Your task to perform on an android device: change alarm snooze length Image 0: 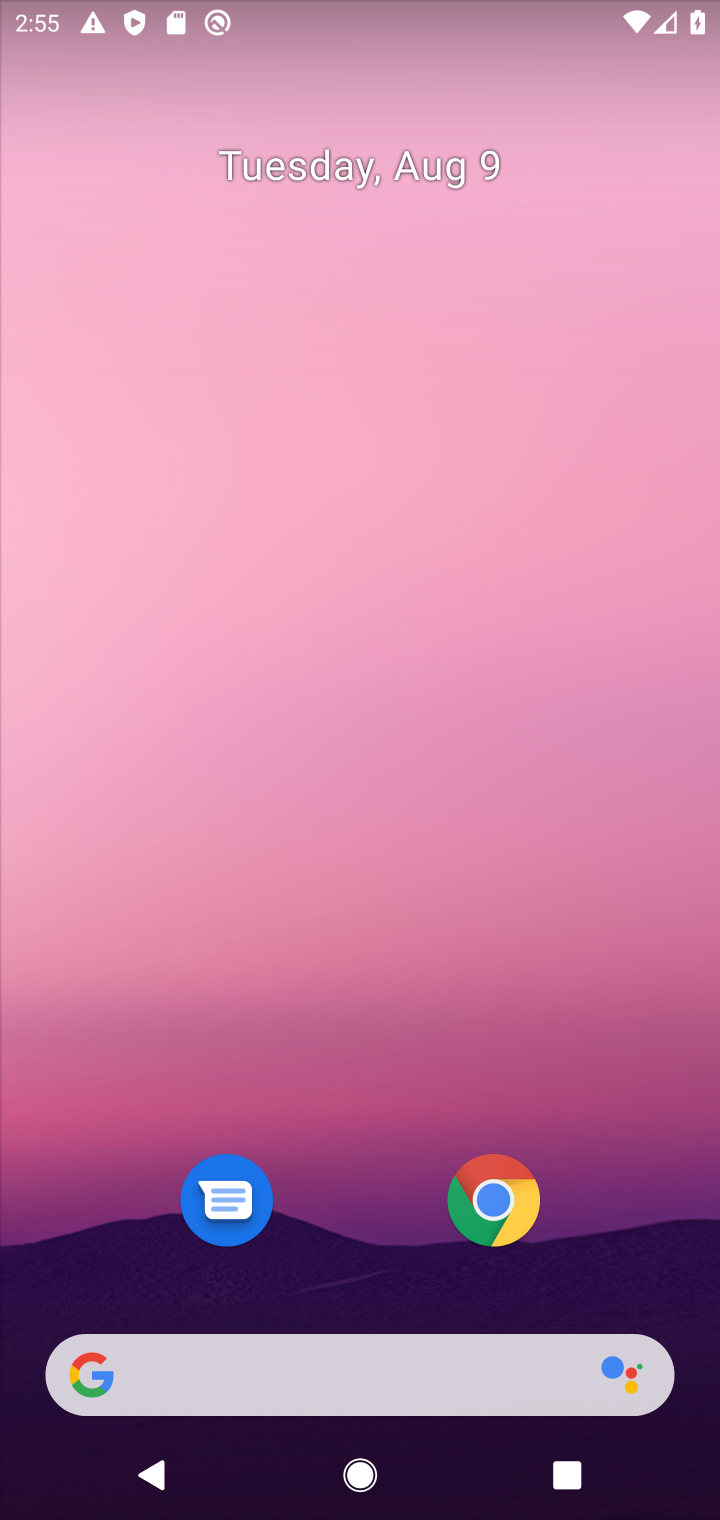
Step 0: drag from (401, 1146) to (461, 45)
Your task to perform on an android device: change alarm snooze length Image 1: 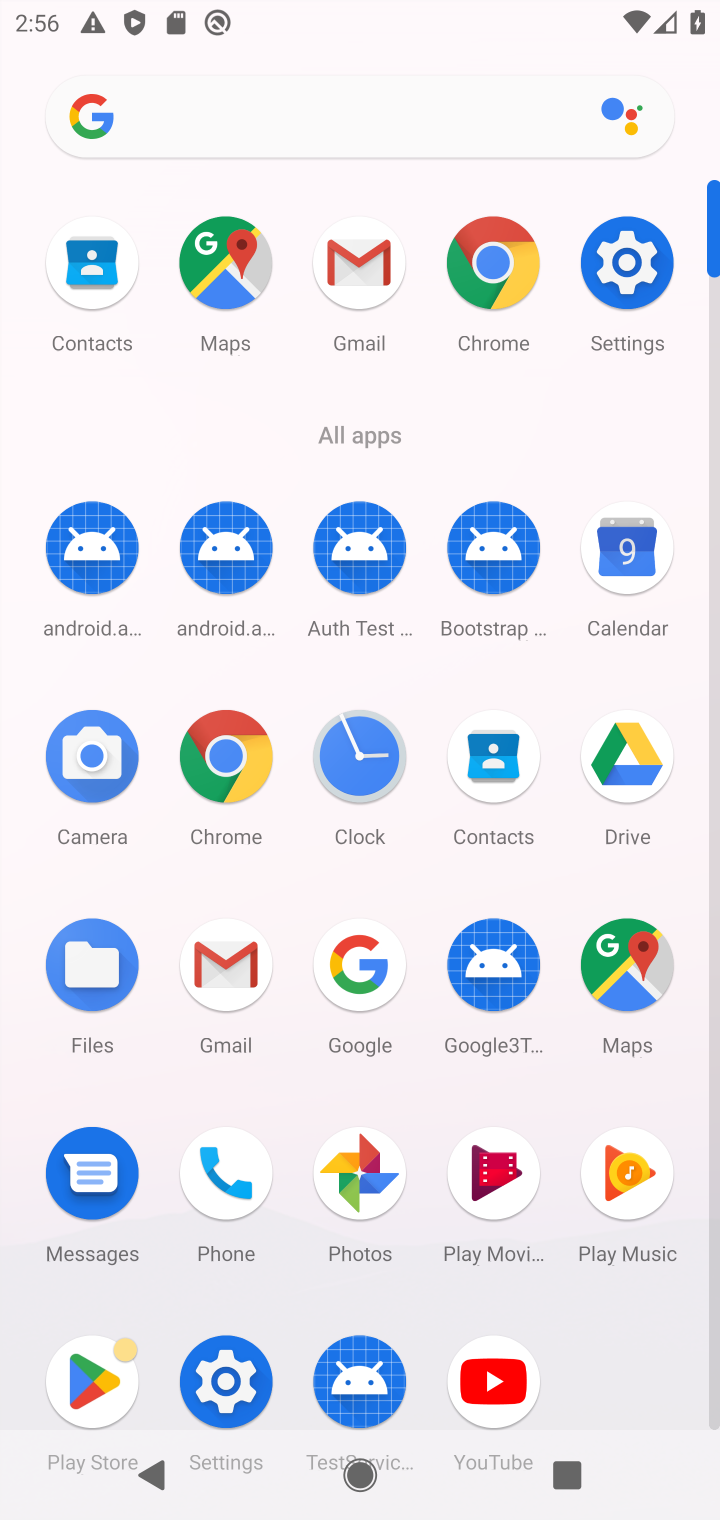
Step 1: click (353, 710)
Your task to perform on an android device: change alarm snooze length Image 2: 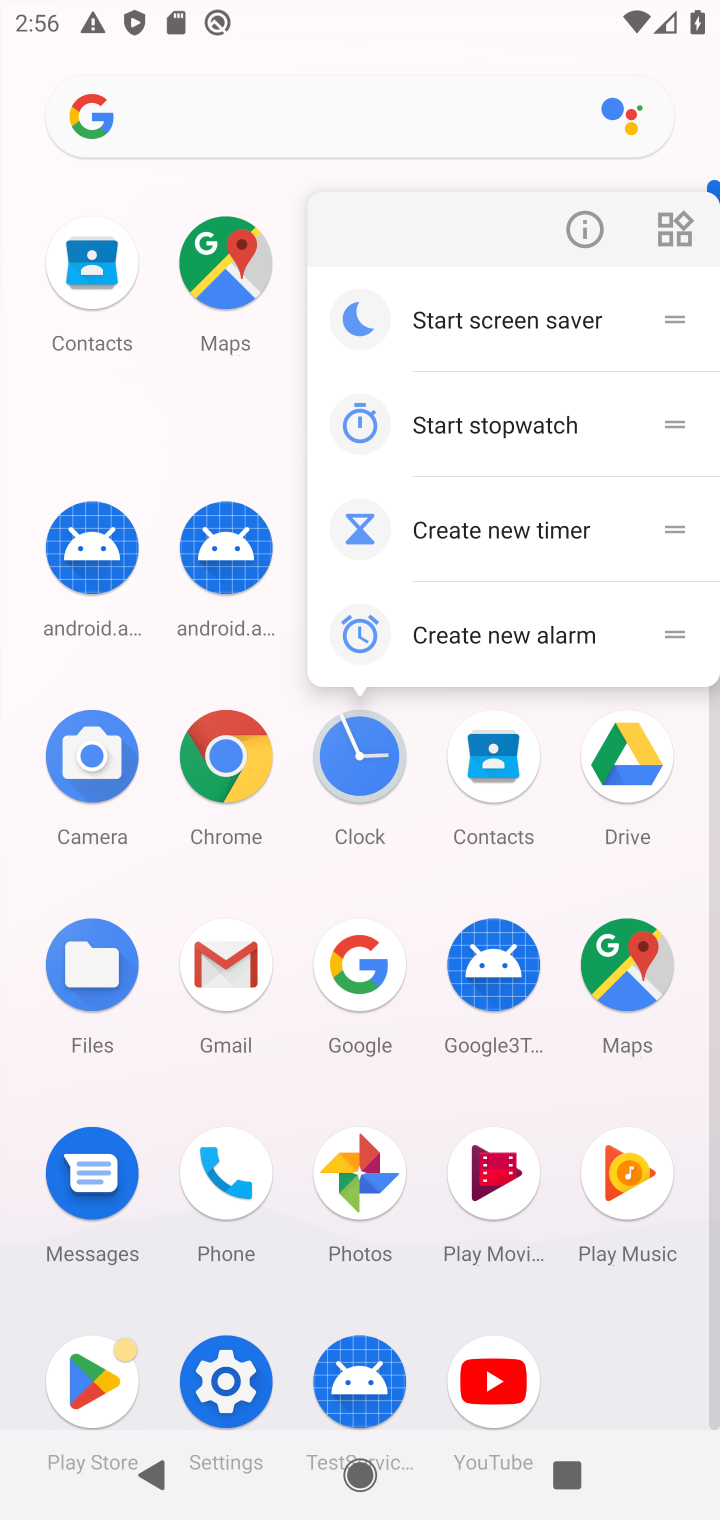
Step 2: click (346, 757)
Your task to perform on an android device: change alarm snooze length Image 3: 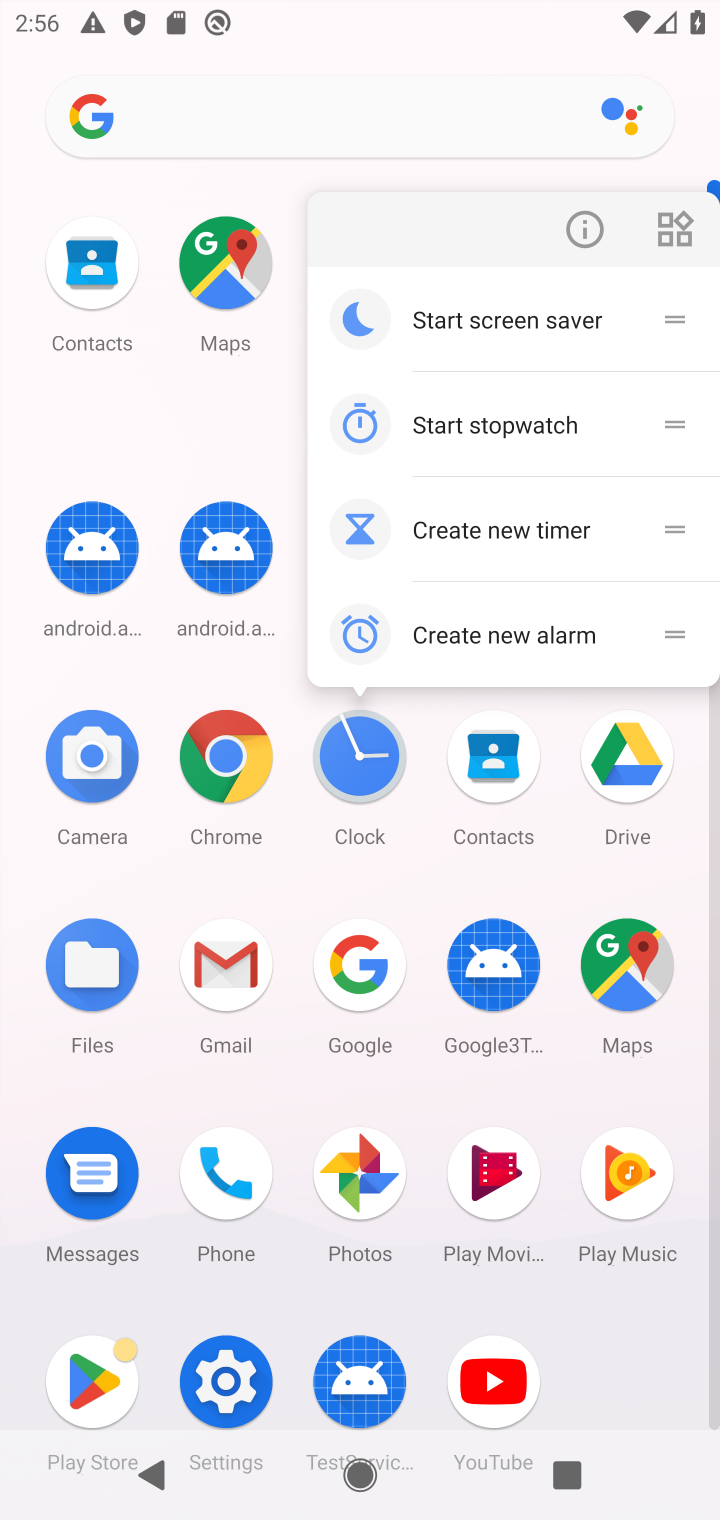
Step 3: click (355, 778)
Your task to perform on an android device: change alarm snooze length Image 4: 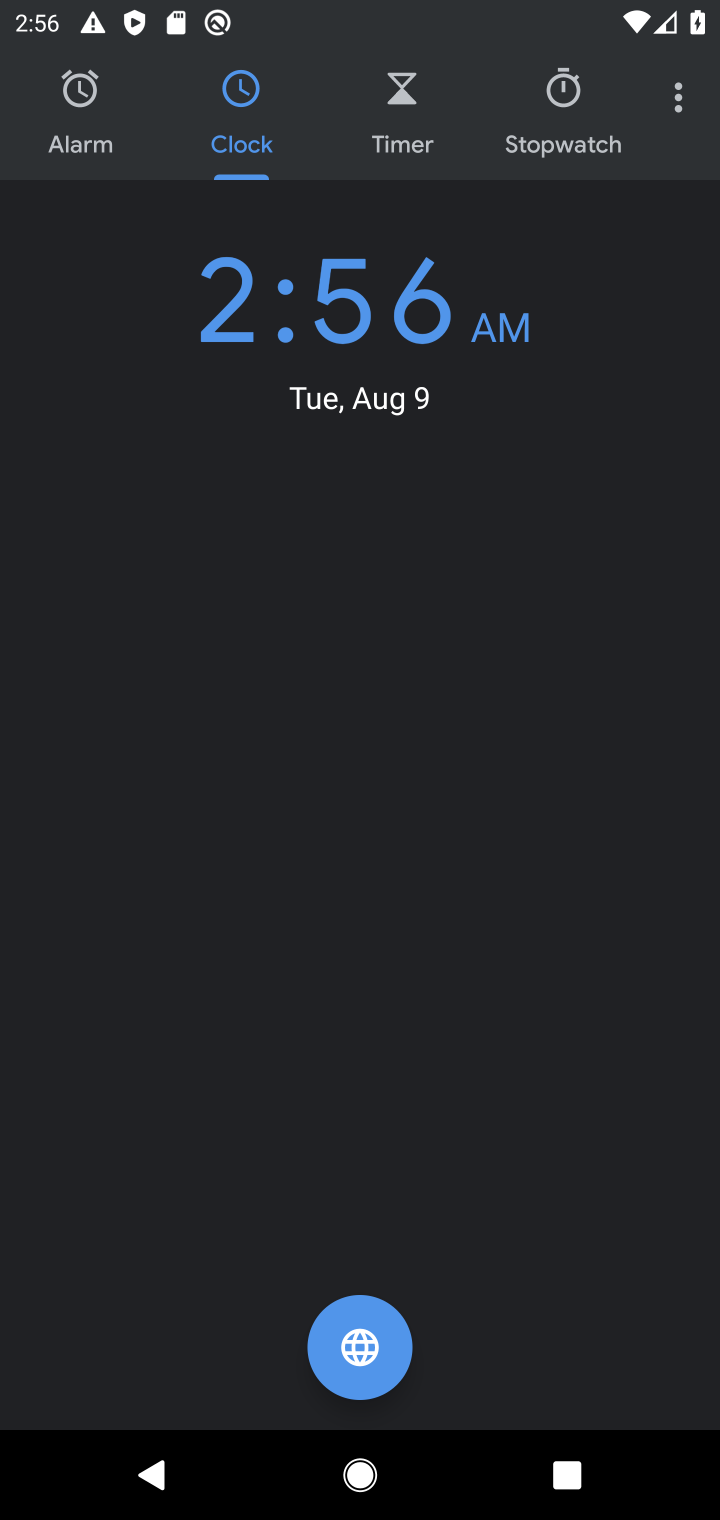
Step 4: click (680, 120)
Your task to perform on an android device: change alarm snooze length Image 5: 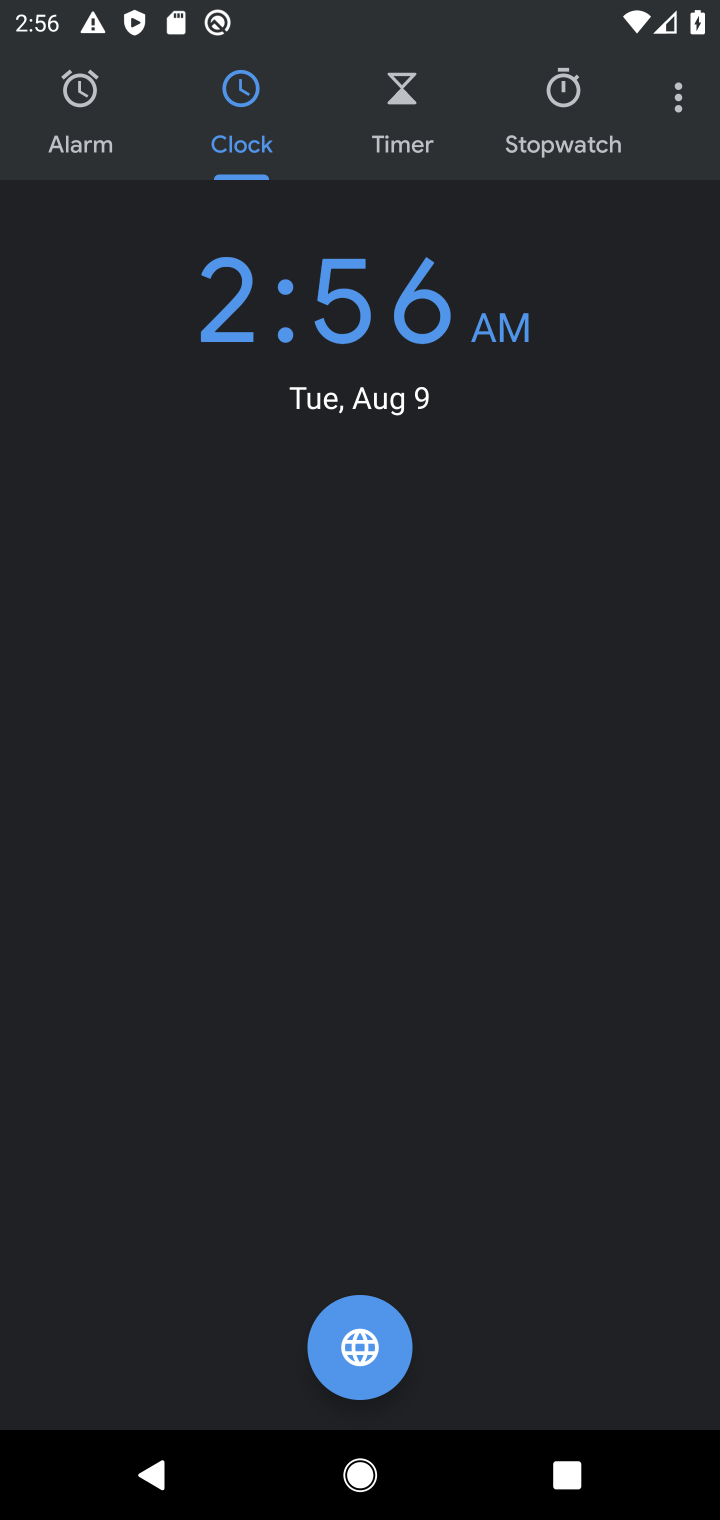
Step 5: click (650, 188)
Your task to perform on an android device: change alarm snooze length Image 6: 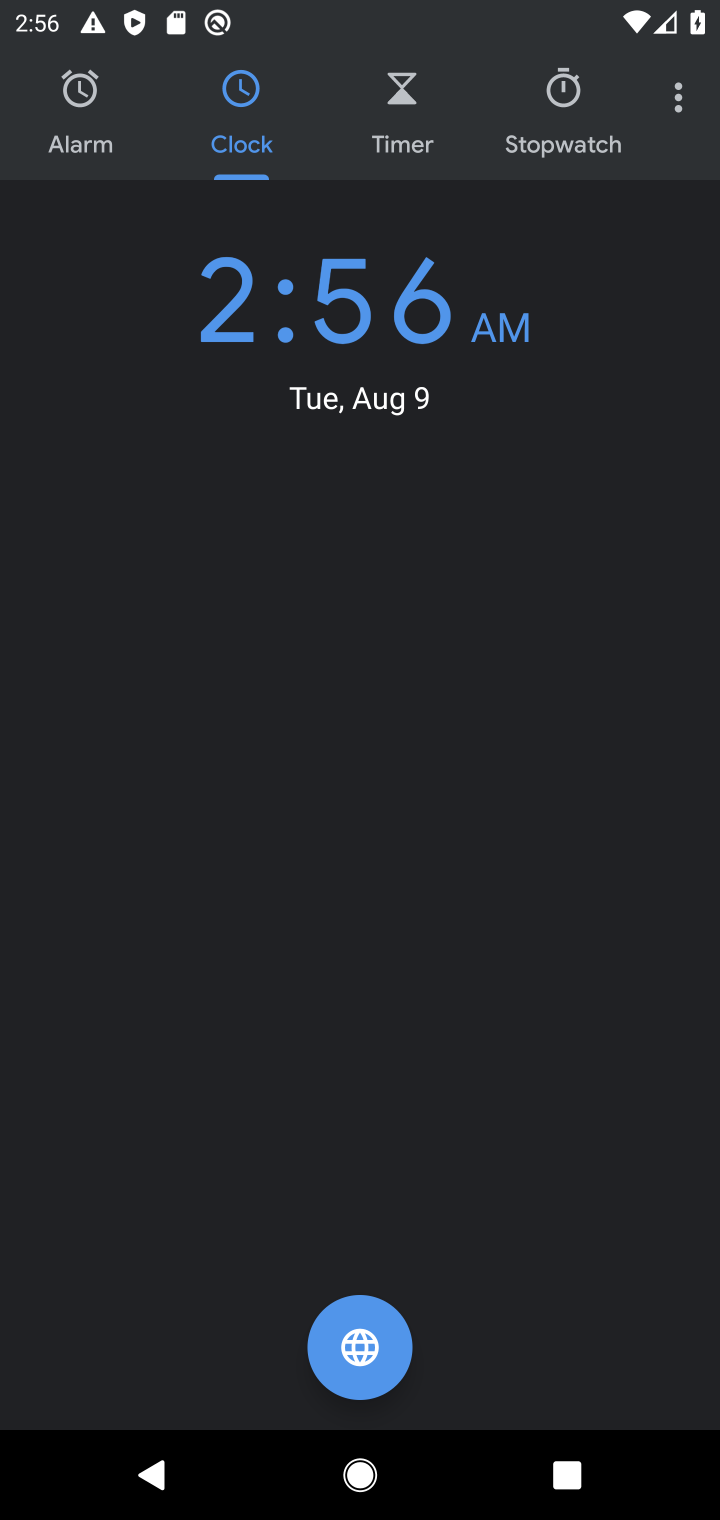
Step 6: click (674, 132)
Your task to perform on an android device: change alarm snooze length Image 7: 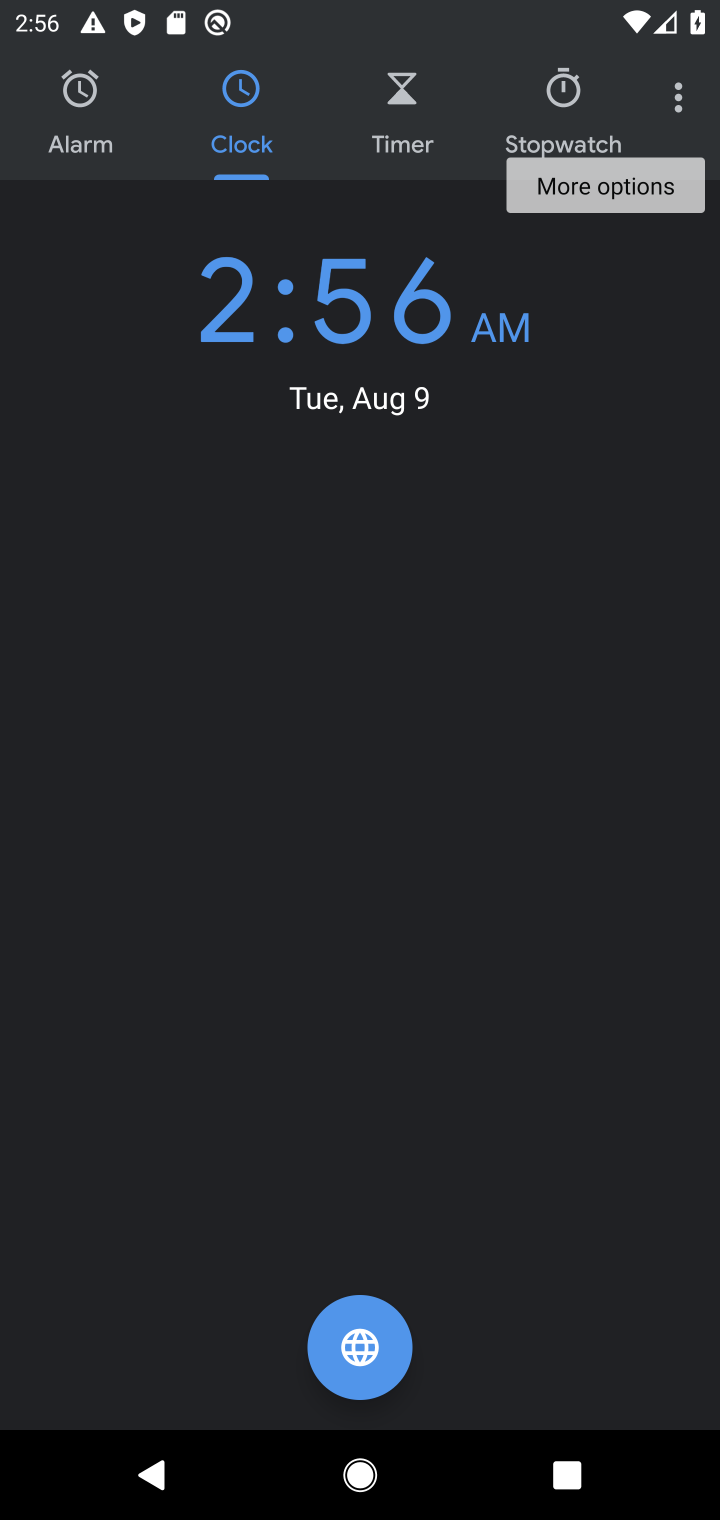
Step 7: click (680, 108)
Your task to perform on an android device: change alarm snooze length Image 8: 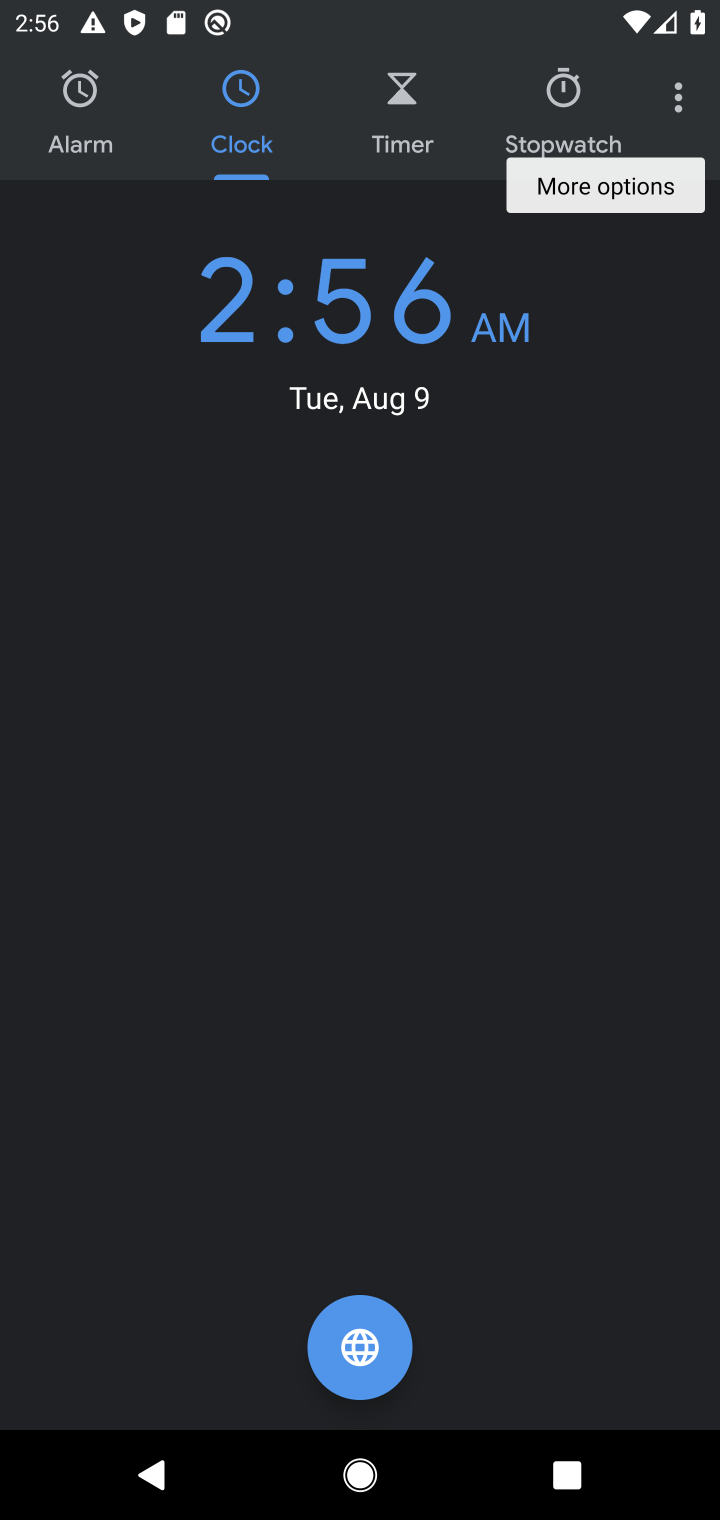
Step 8: click (680, 108)
Your task to perform on an android device: change alarm snooze length Image 9: 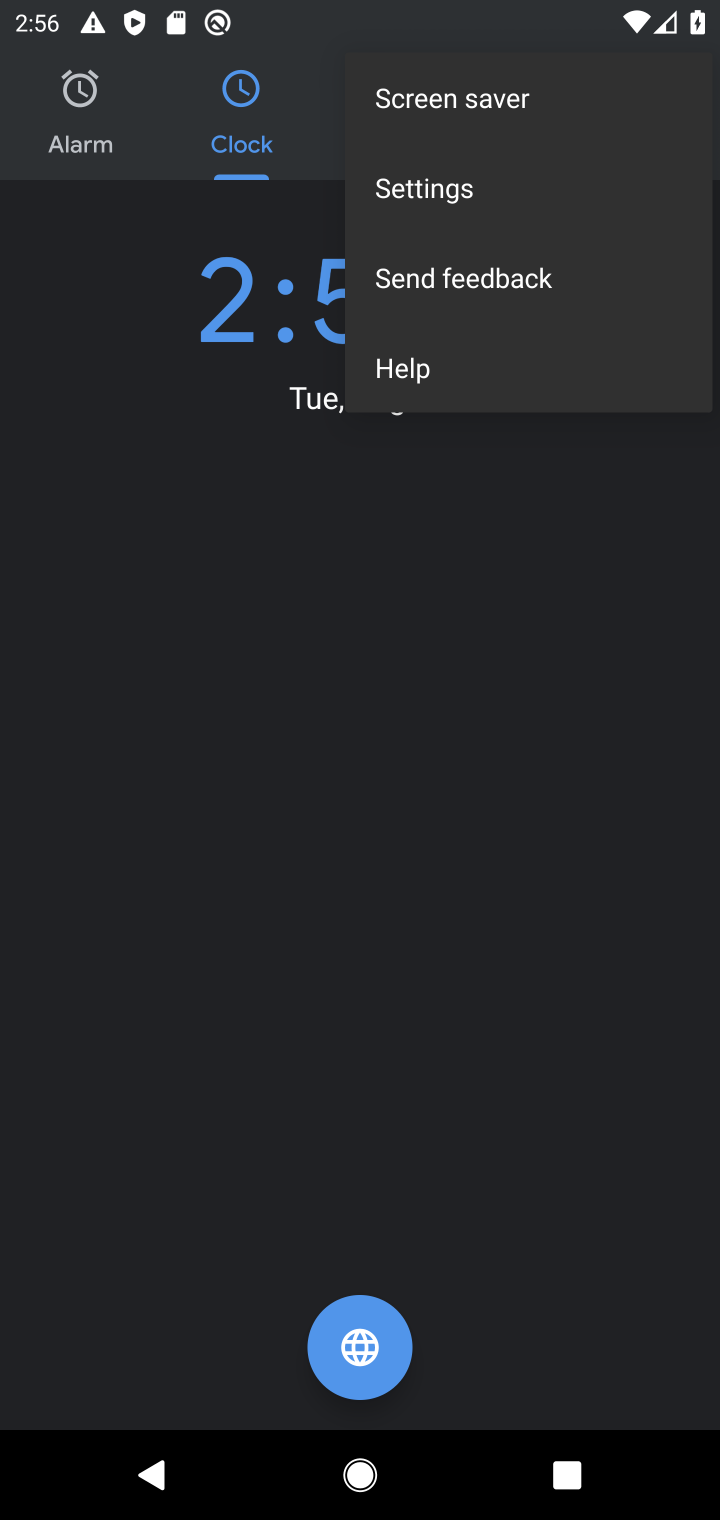
Step 9: click (447, 216)
Your task to perform on an android device: change alarm snooze length Image 10: 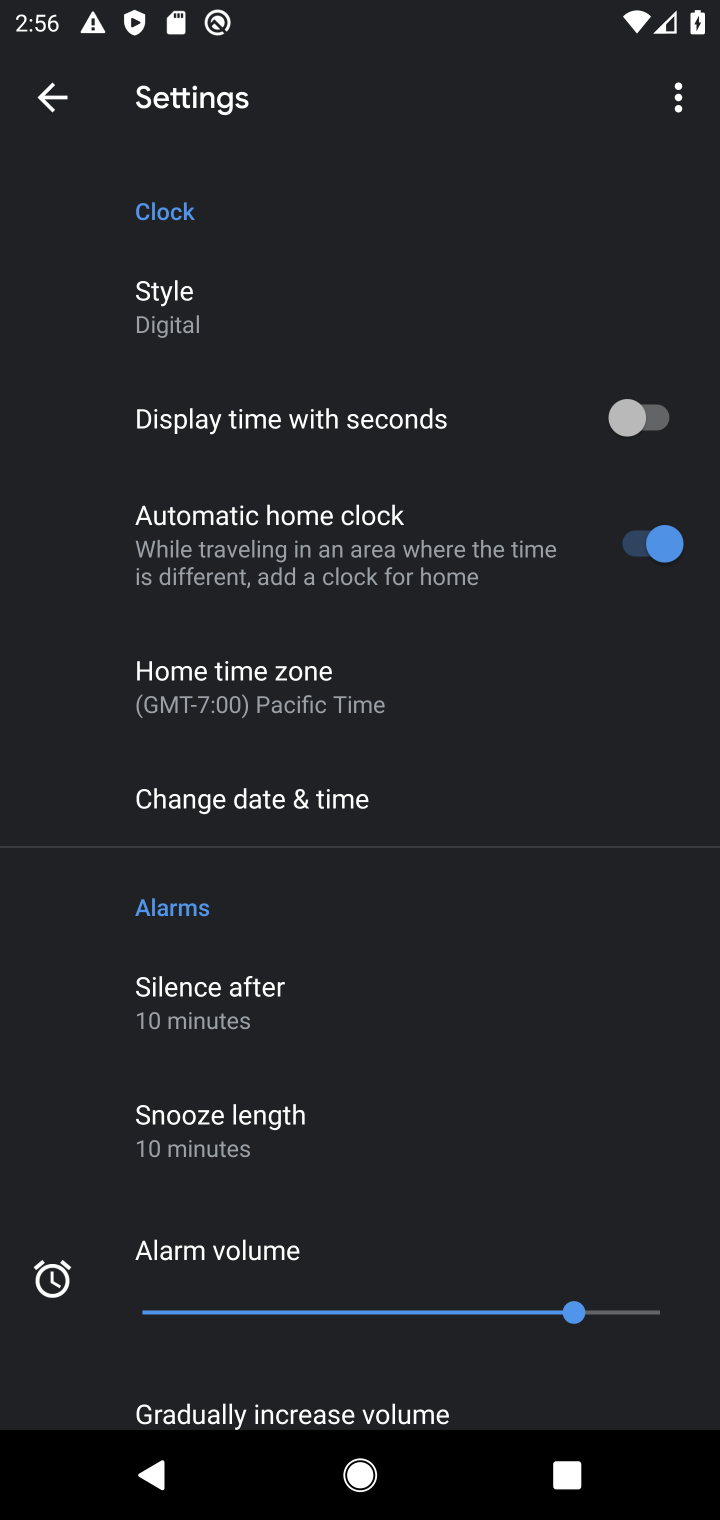
Step 10: drag from (349, 850) to (385, 515)
Your task to perform on an android device: change alarm snooze length Image 11: 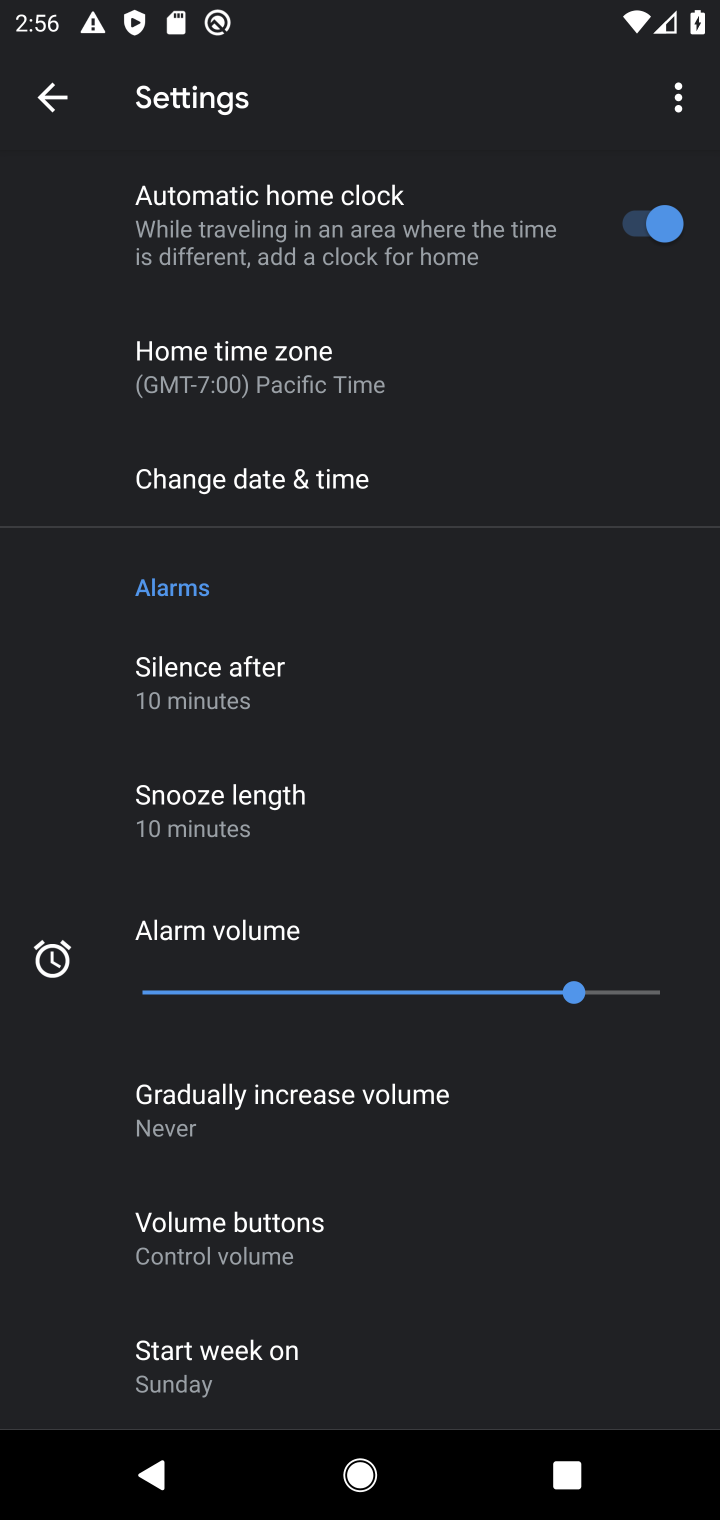
Step 11: click (300, 780)
Your task to perform on an android device: change alarm snooze length Image 12: 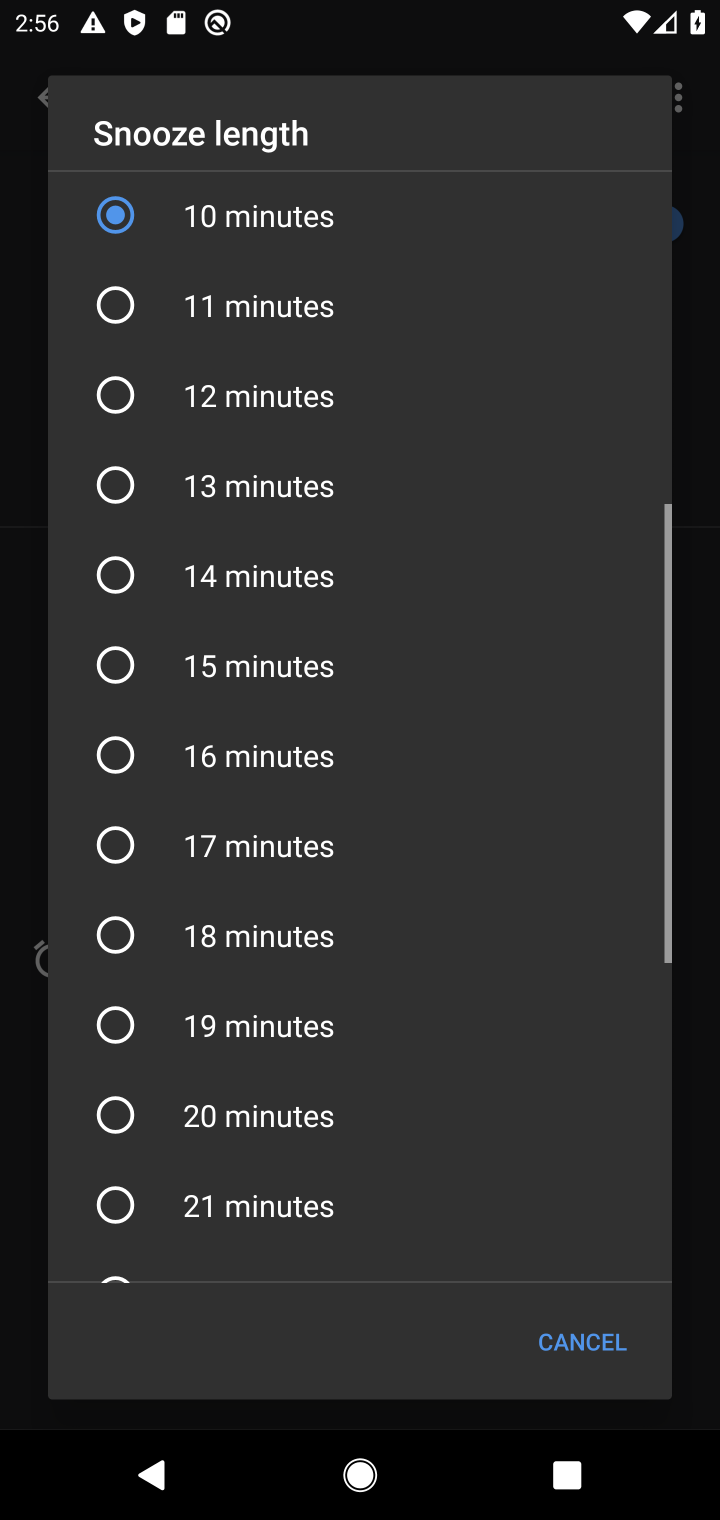
Step 12: click (240, 337)
Your task to perform on an android device: change alarm snooze length Image 13: 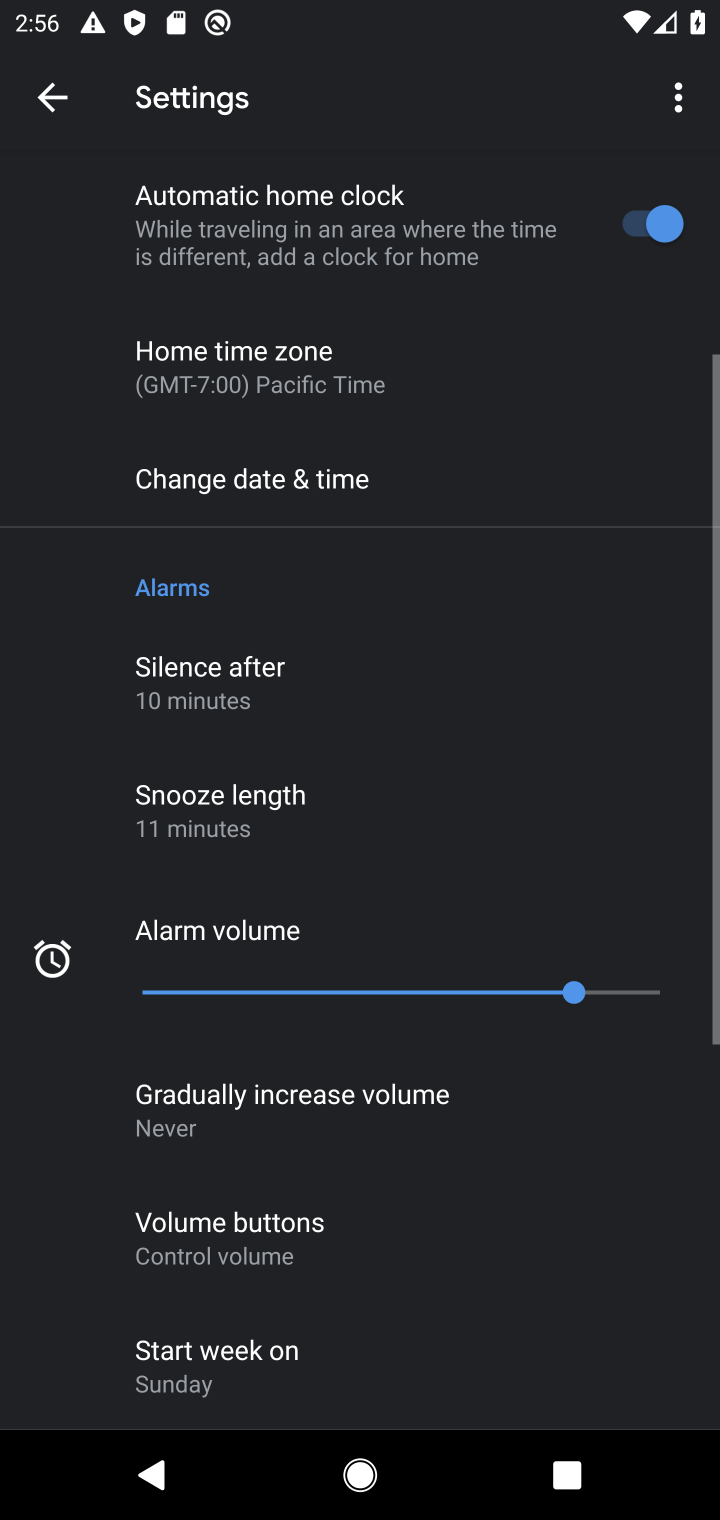
Step 13: task complete